Your task to perform on an android device: turn off priority inbox in the gmail app Image 0: 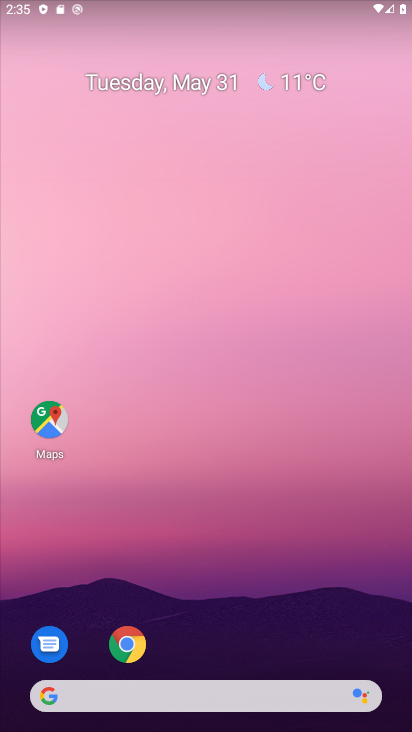
Step 0: drag from (187, 612) to (238, 151)
Your task to perform on an android device: turn off priority inbox in the gmail app Image 1: 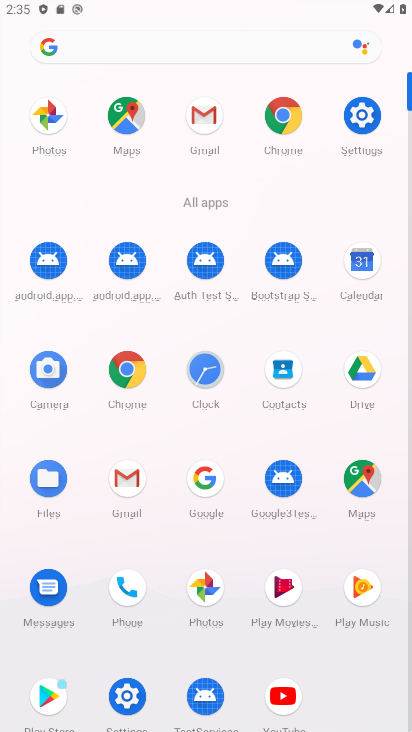
Step 1: click (208, 125)
Your task to perform on an android device: turn off priority inbox in the gmail app Image 2: 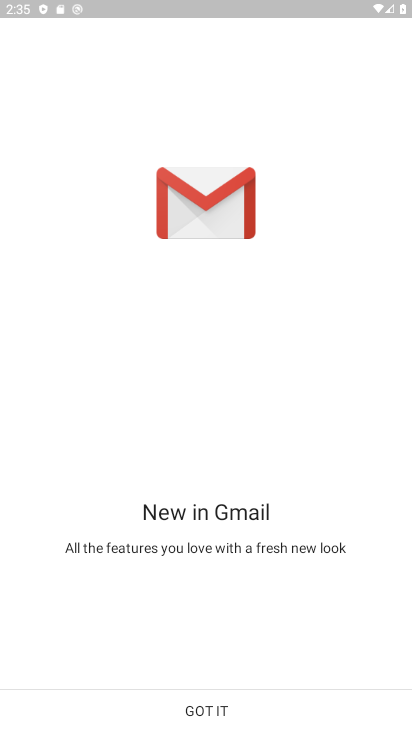
Step 2: click (220, 705)
Your task to perform on an android device: turn off priority inbox in the gmail app Image 3: 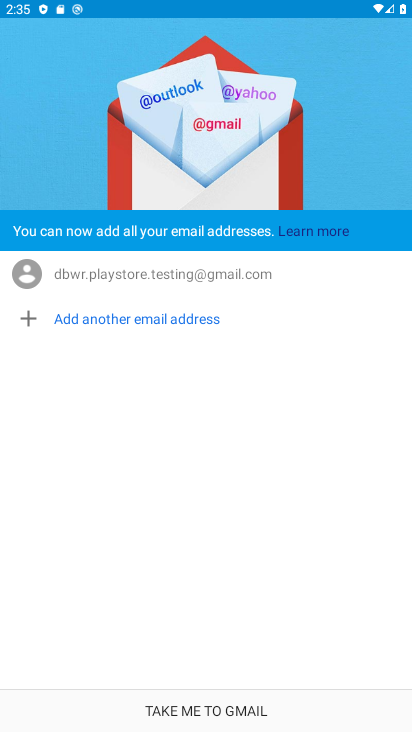
Step 3: click (246, 709)
Your task to perform on an android device: turn off priority inbox in the gmail app Image 4: 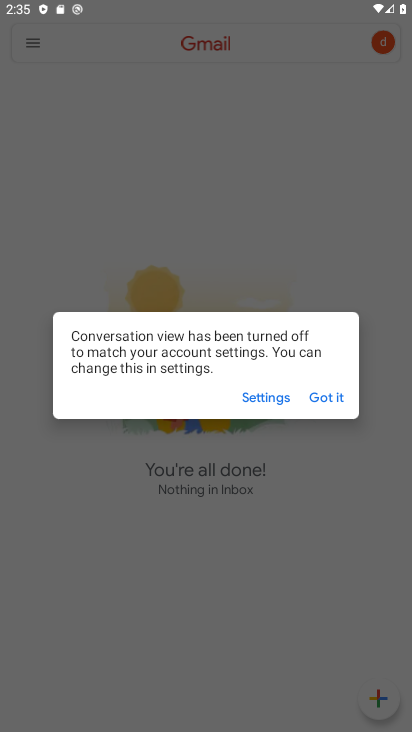
Step 4: click (323, 392)
Your task to perform on an android device: turn off priority inbox in the gmail app Image 5: 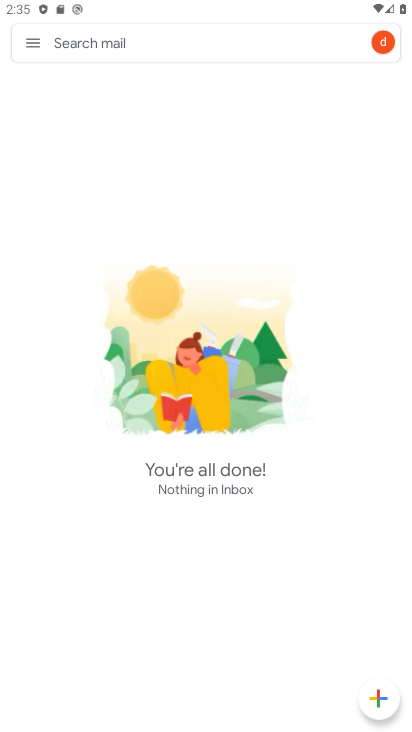
Step 5: click (34, 42)
Your task to perform on an android device: turn off priority inbox in the gmail app Image 6: 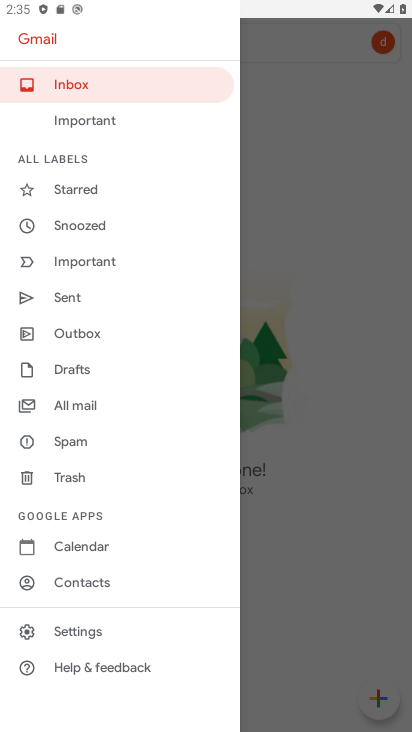
Step 6: click (63, 631)
Your task to perform on an android device: turn off priority inbox in the gmail app Image 7: 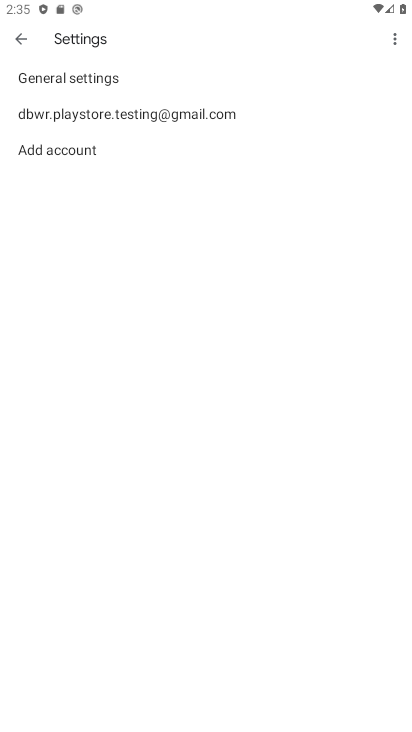
Step 7: click (123, 71)
Your task to perform on an android device: turn off priority inbox in the gmail app Image 8: 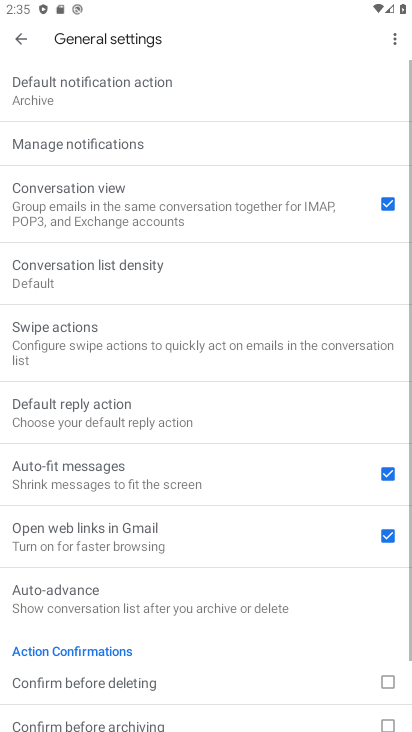
Step 8: task complete